Your task to perform on an android device: change the clock style Image 0: 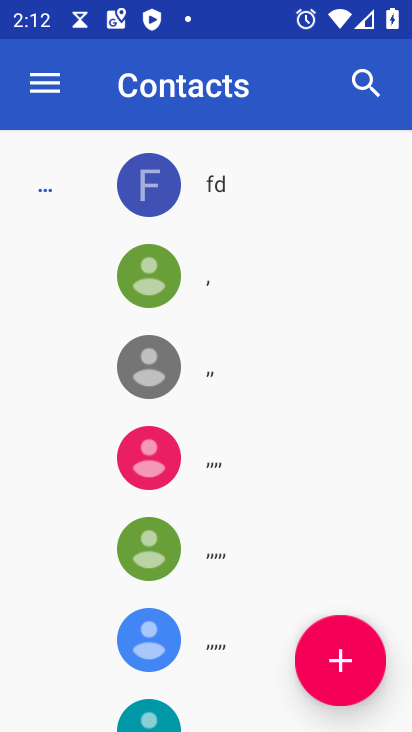
Step 0: press home button
Your task to perform on an android device: change the clock style Image 1: 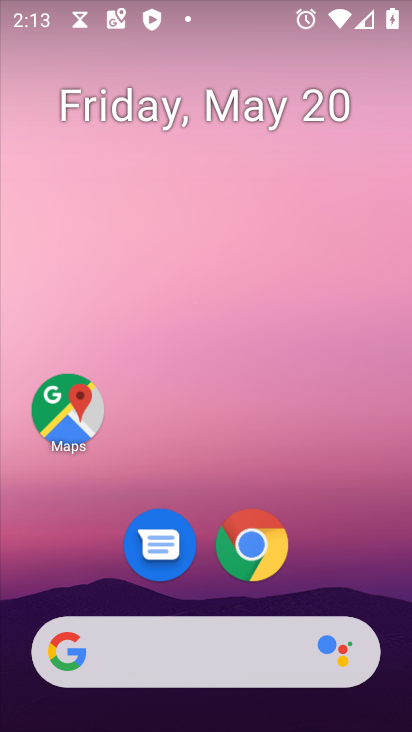
Step 1: drag from (331, 559) to (287, 122)
Your task to perform on an android device: change the clock style Image 2: 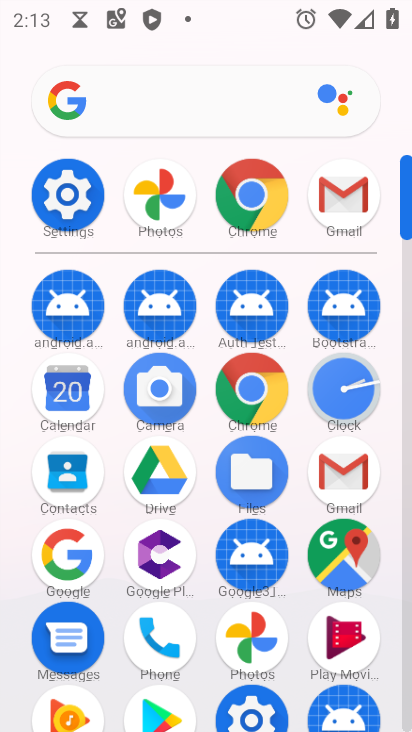
Step 2: click (346, 385)
Your task to perform on an android device: change the clock style Image 3: 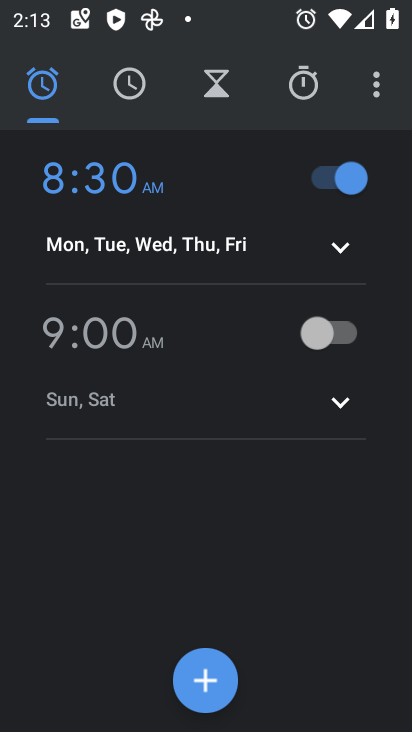
Step 3: click (382, 81)
Your task to perform on an android device: change the clock style Image 4: 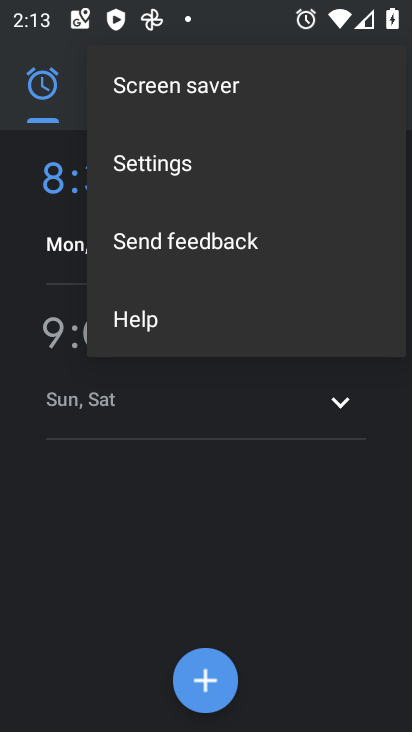
Step 4: click (162, 159)
Your task to perform on an android device: change the clock style Image 5: 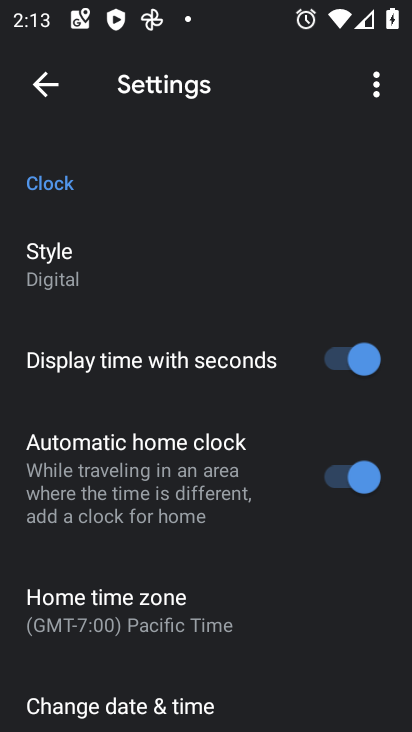
Step 5: click (66, 251)
Your task to perform on an android device: change the clock style Image 6: 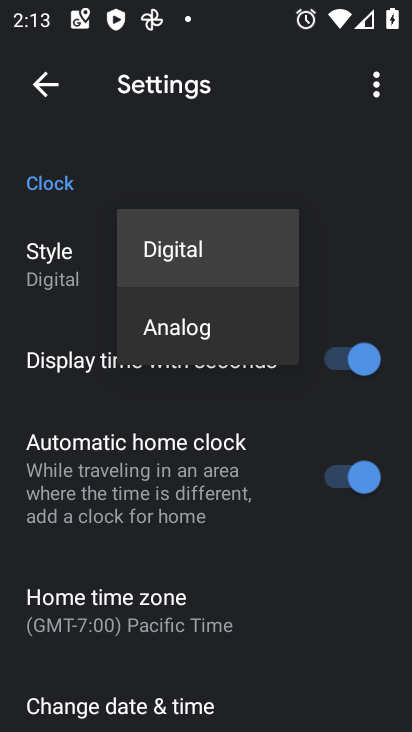
Step 6: click (180, 315)
Your task to perform on an android device: change the clock style Image 7: 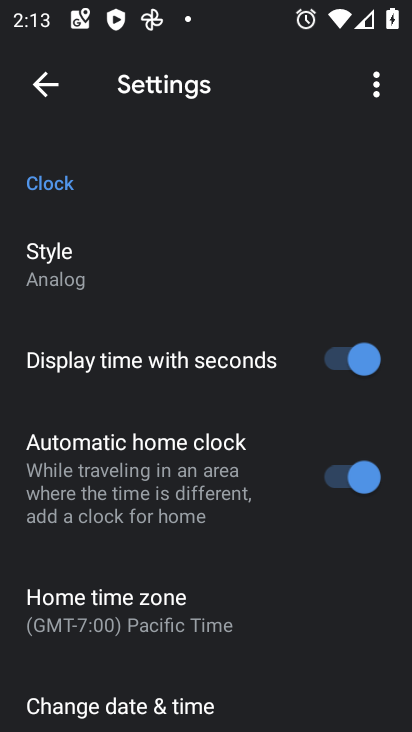
Step 7: task complete